Your task to perform on an android device: Open the calendar app, open the side menu, and click the "Day" option Image 0: 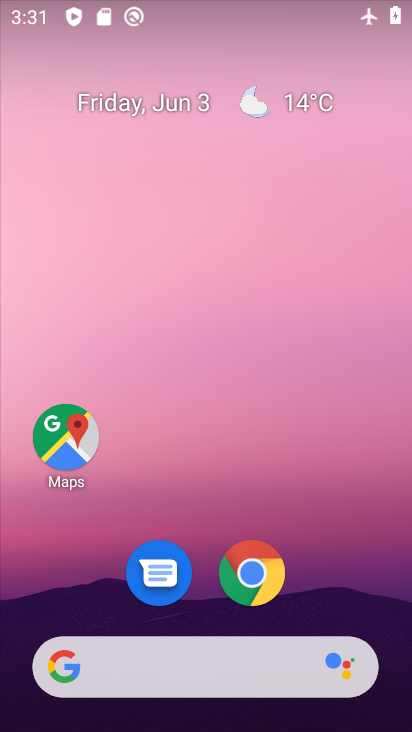
Step 0: click (171, 296)
Your task to perform on an android device: Open the calendar app, open the side menu, and click the "Day" option Image 1: 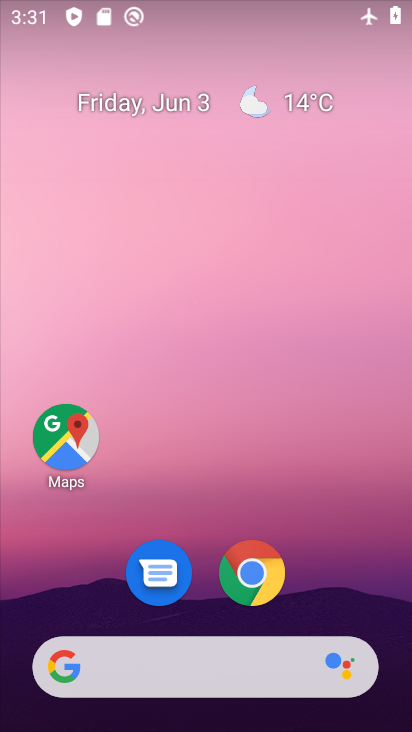
Step 1: drag from (283, 146) to (291, 92)
Your task to perform on an android device: Open the calendar app, open the side menu, and click the "Day" option Image 2: 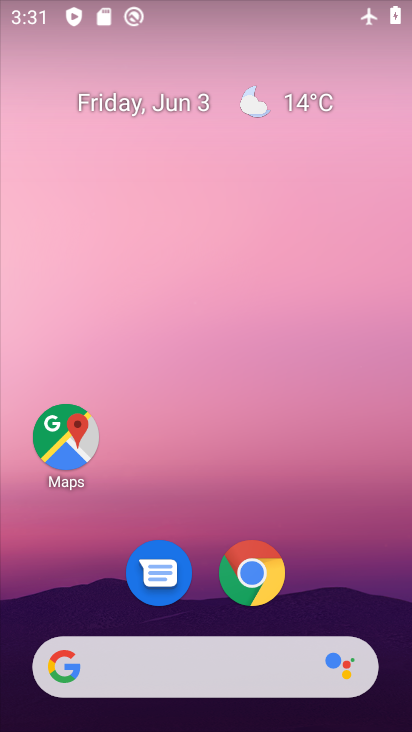
Step 2: drag from (207, 543) to (268, 140)
Your task to perform on an android device: Open the calendar app, open the side menu, and click the "Day" option Image 3: 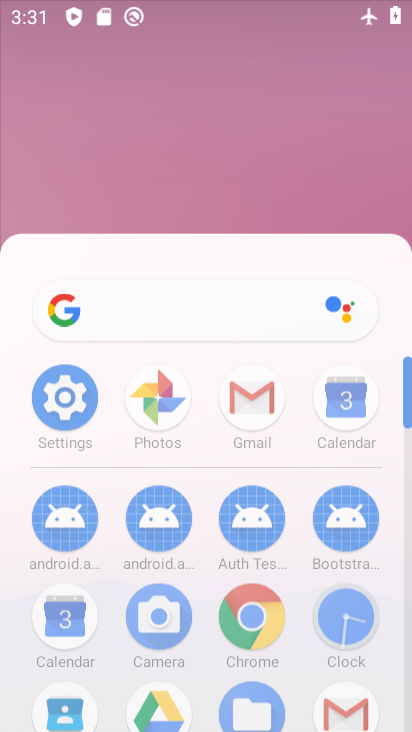
Step 3: click (280, 53)
Your task to perform on an android device: Open the calendar app, open the side menu, and click the "Day" option Image 4: 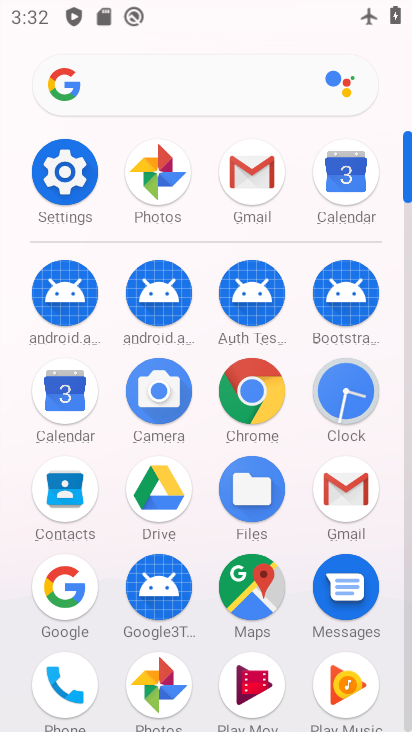
Step 4: click (76, 404)
Your task to perform on an android device: Open the calendar app, open the side menu, and click the "Day" option Image 5: 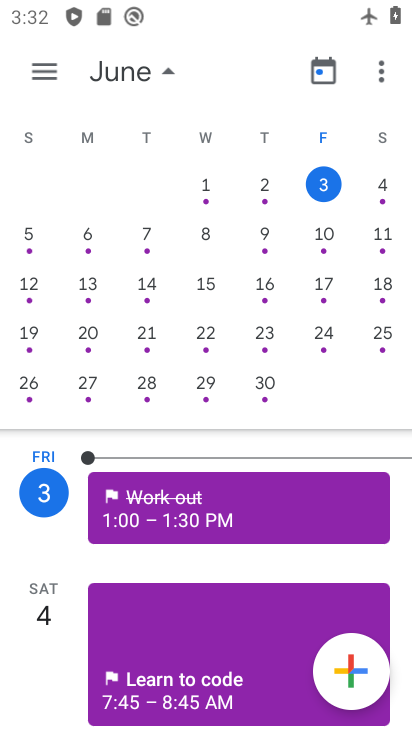
Step 5: click (37, 72)
Your task to perform on an android device: Open the calendar app, open the side menu, and click the "Day" option Image 6: 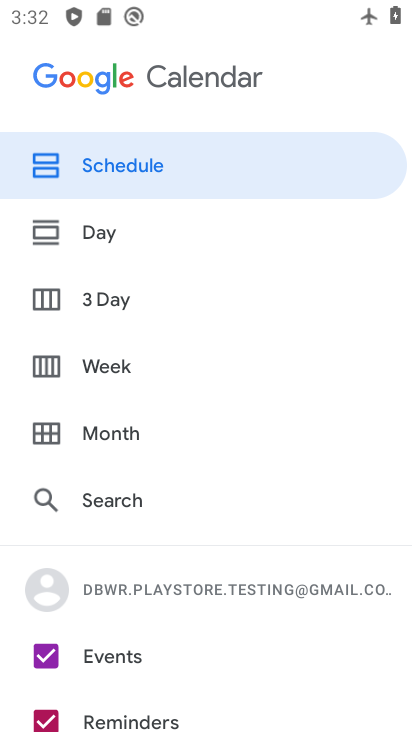
Step 6: click (120, 227)
Your task to perform on an android device: Open the calendar app, open the side menu, and click the "Day" option Image 7: 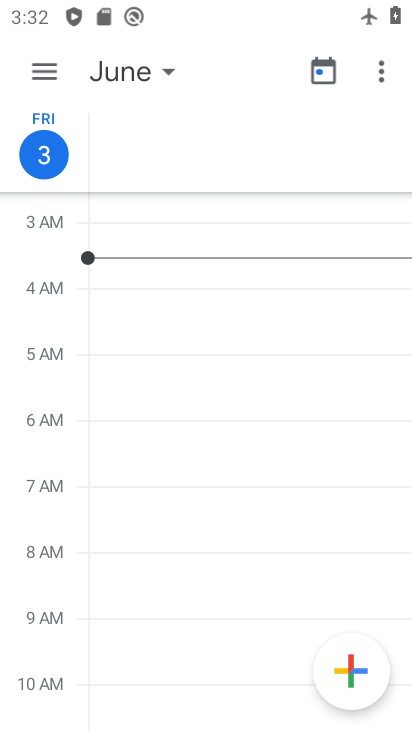
Step 7: task complete